Your task to perform on an android device: Go to battery settings Image 0: 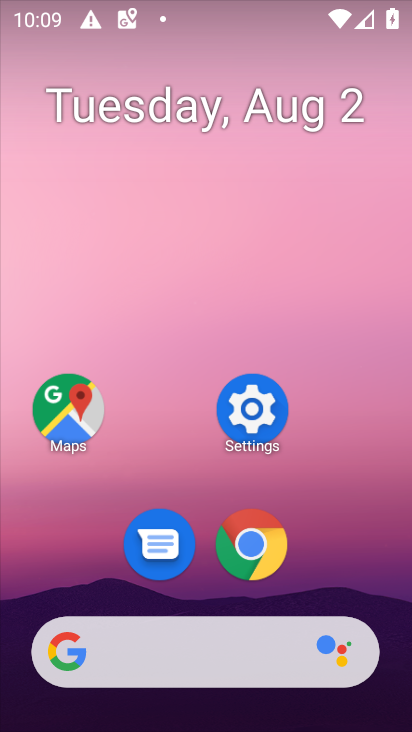
Step 0: click (264, 414)
Your task to perform on an android device: Go to battery settings Image 1: 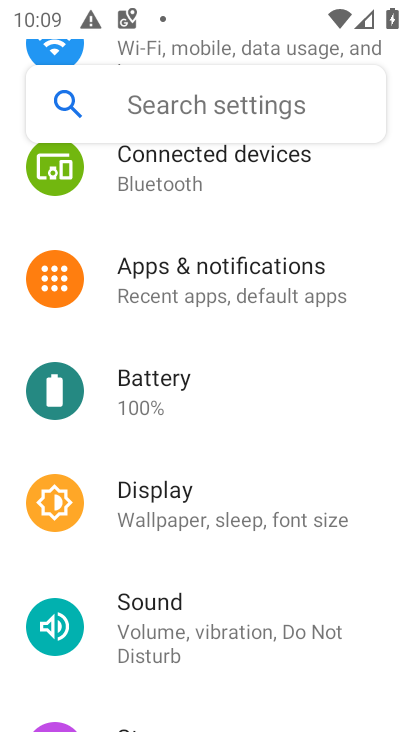
Step 1: click (181, 390)
Your task to perform on an android device: Go to battery settings Image 2: 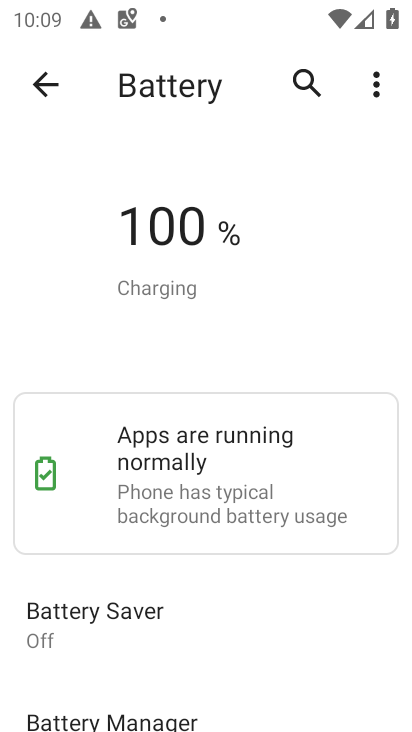
Step 2: task complete